Your task to perform on an android device: turn on location history Image 0: 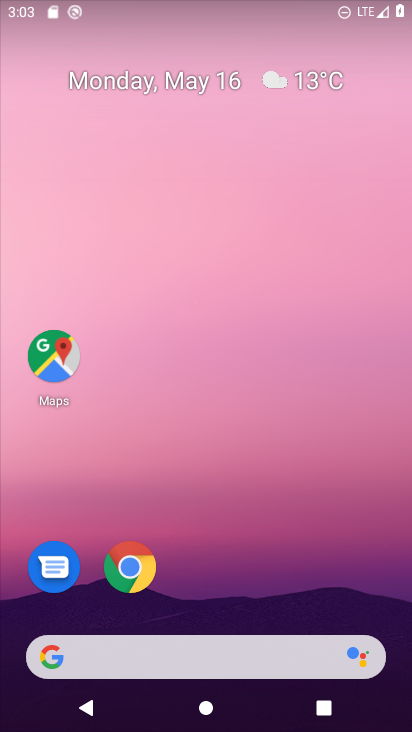
Step 0: drag from (346, 596) to (271, 1)
Your task to perform on an android device: turn on location history Image 1: 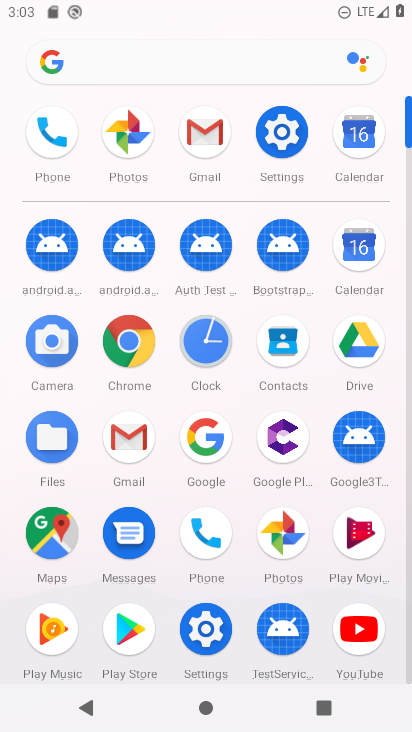
Step 1: click (200, 624)
Your task to perform on an android device: turn on location history Image 2: 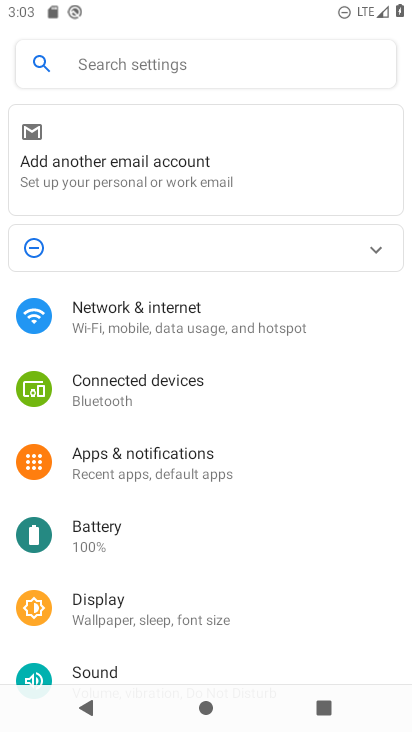
Step 2: drag from (134, 597) to (125, 244)
Your task to perform on an android device: turn on location history Image 3: 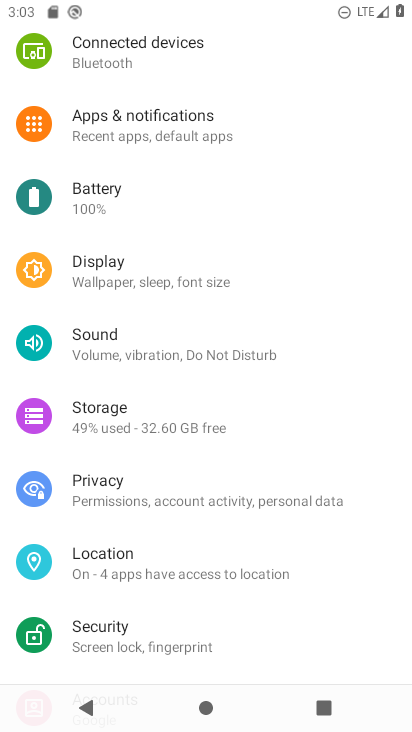
Step 3: click (123, 543)
Your task to perform on an android device: turn on location history Image 4: 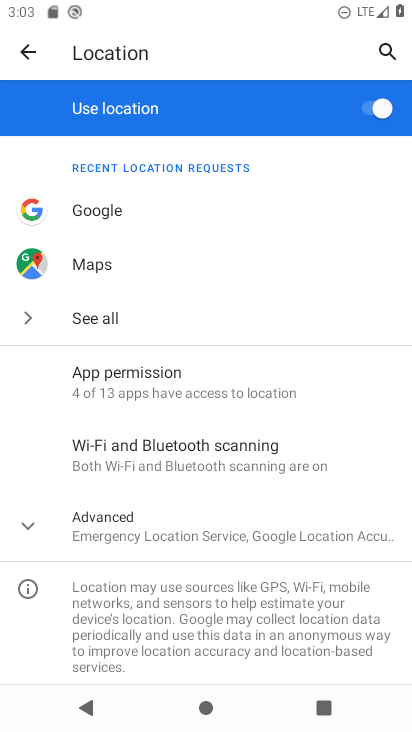
Step 4: click (150, 513)
Your task to perform on an android device: turn on location history Image 5: 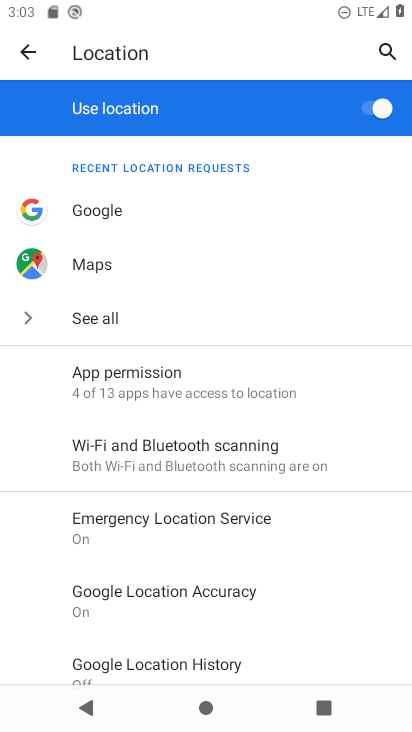
Step 5: click (169, 660)
Your task to perform on an android device: turn on location history Image 6: 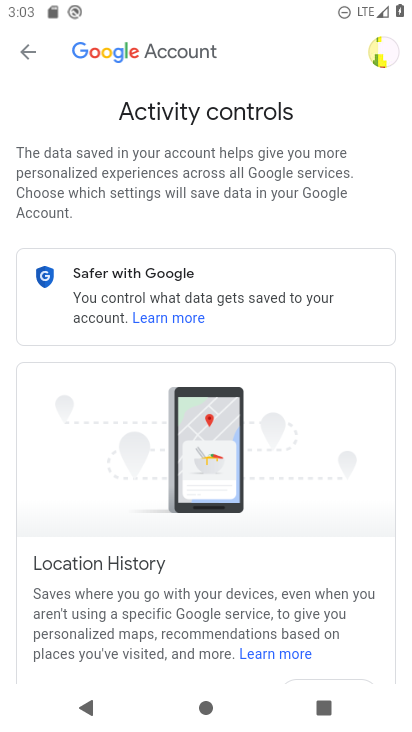
Step 6: task complete